Your task to perform on an android device: Go to Wikipedia Image 0: 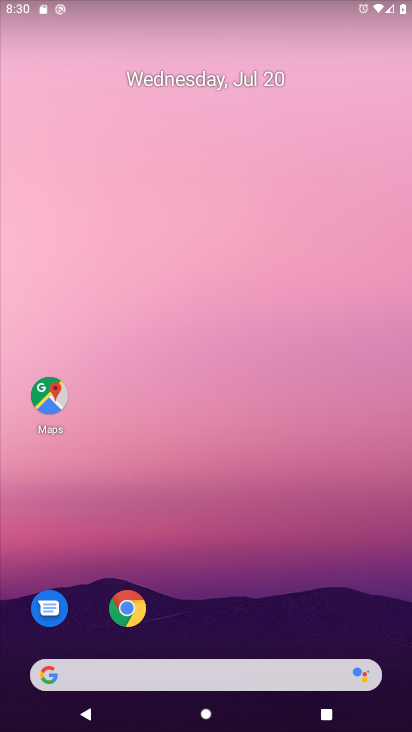
Step 0: drag from (218, 600) to (227, 317)
Your task to perform on an android device: Go to Wikipedia Image 1: 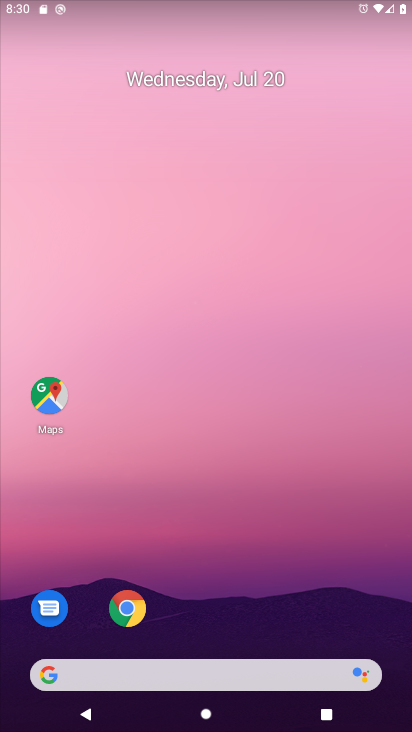
Step 1: drag from (213, 567) to (246, 202)
Your task to perform on an android device: Go to Wikipedia Image 2: 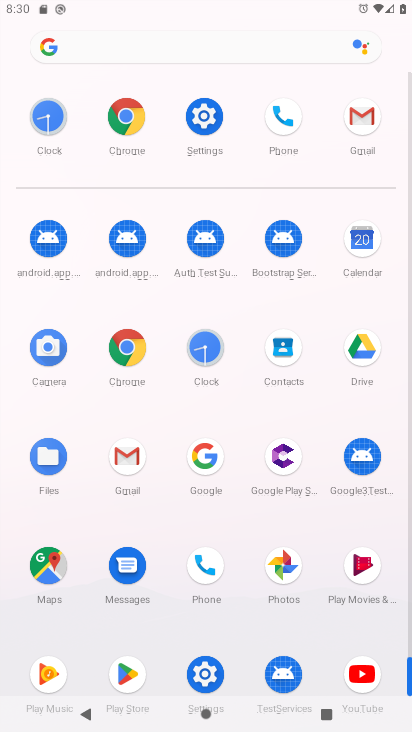
Step 2: click (131, 119)
Your task to perform on an android device: Go to Wikipedia Image 3: 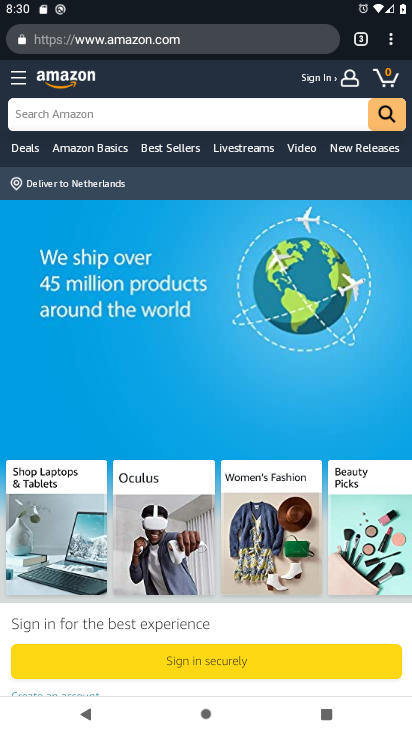
Step 3: click (394, 36)
Your task to perform on an android device: Go to Wikipedia Image 4: 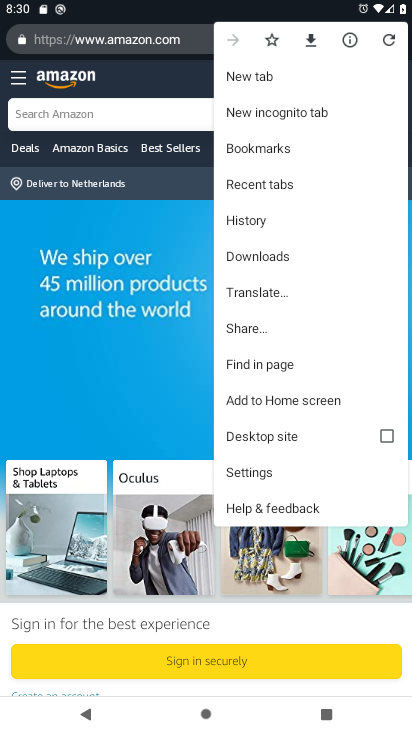
Step 4: click (245, 64)
Your task to perform on an android device: Go to Wikipedia Image 5: 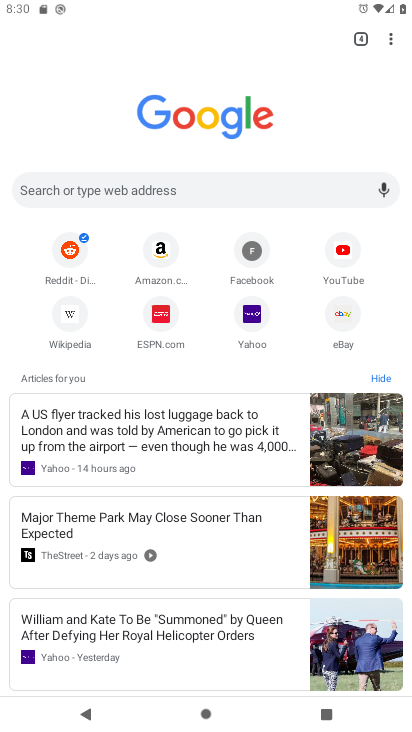
Step 5: click (58, 310)
Your task to perform on an android device: Go to Wikipedia Image 6: 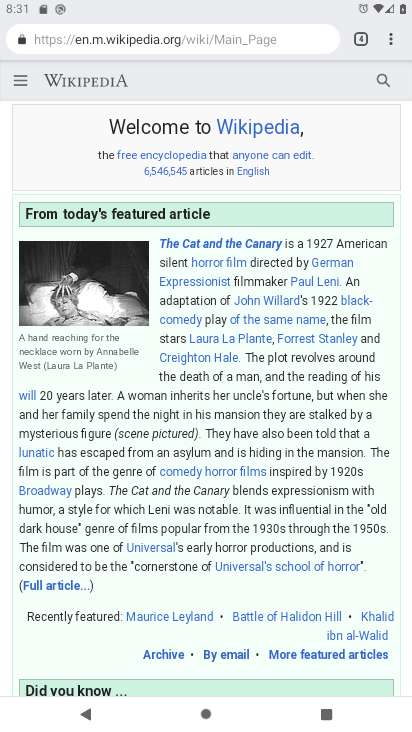
Step 6: task complete